Your task to perform on an android device: Go to settings Image 0: 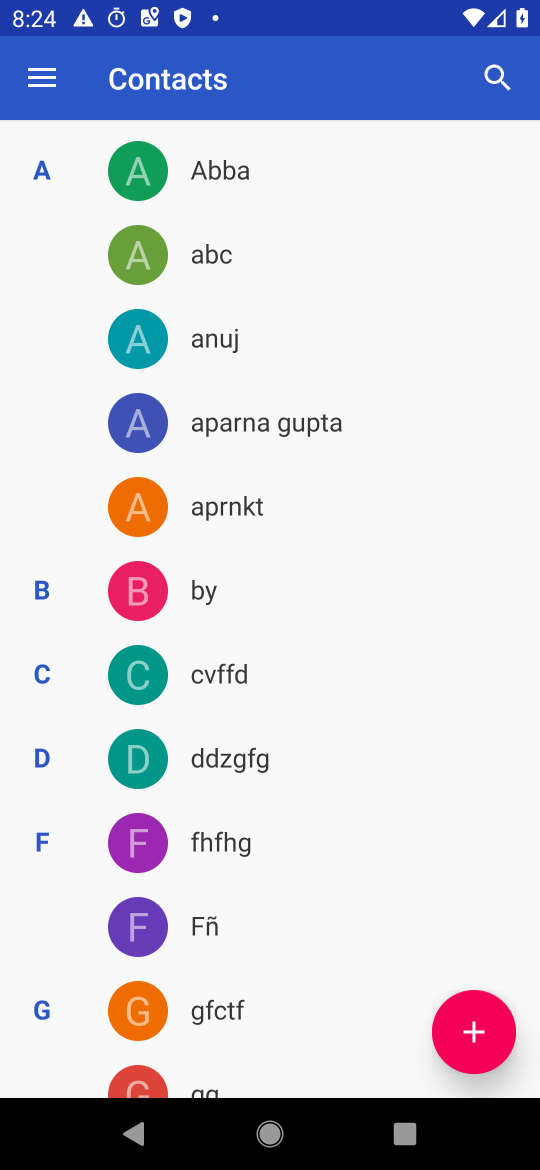
Step 0: press home button
Your task to perform on an android device: Go to settings Image 1: 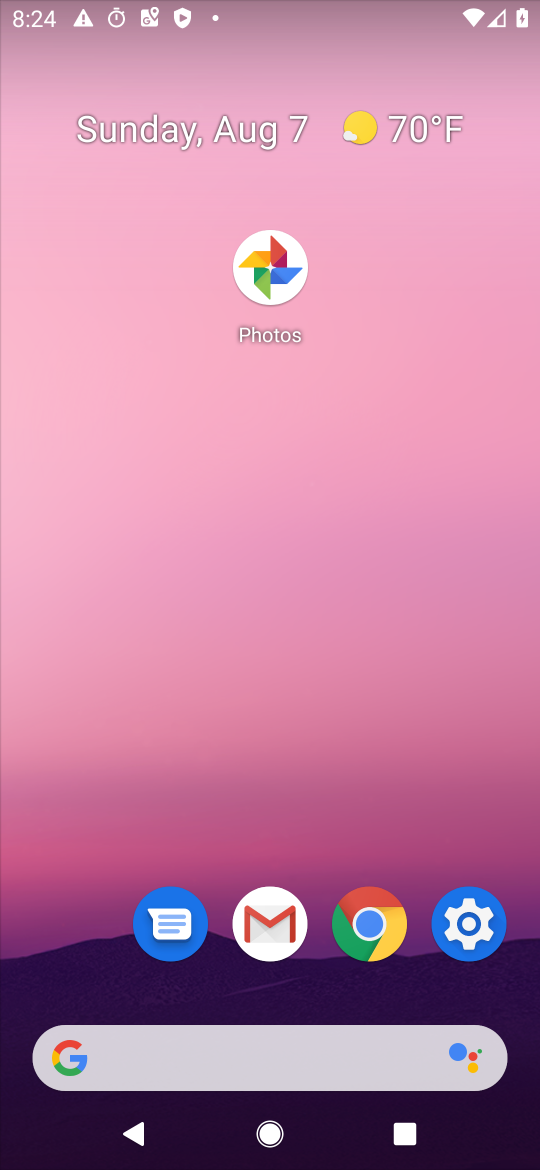
Step 1: drag from (330, 1057) to (326, 349)
Your task to perform on an android device: Go to settings Image 2: 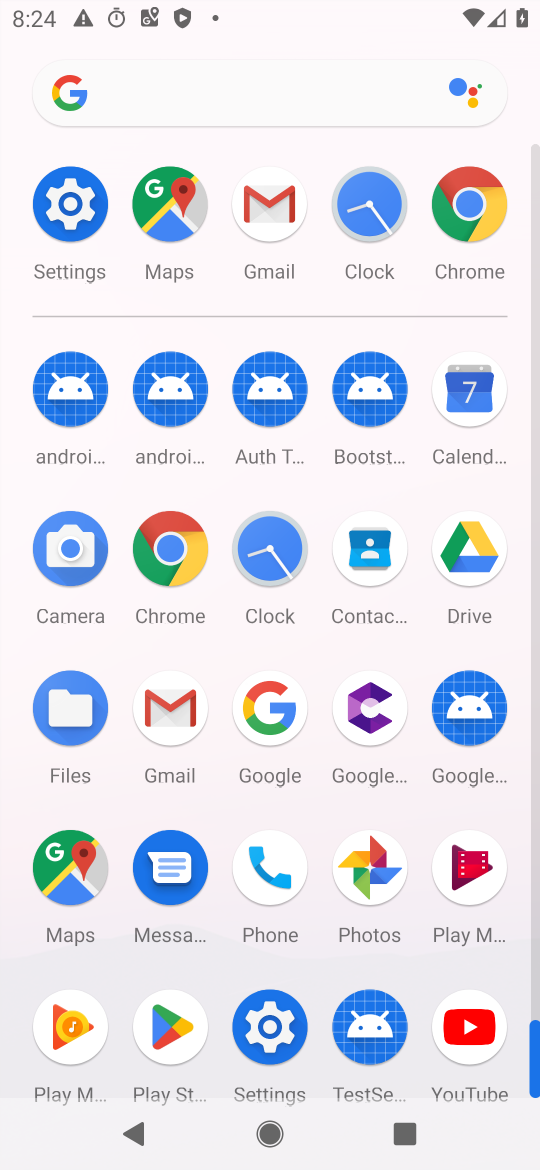
Step 2: click (82, 213)
Your task to perform on an android device: Go to settings Image 3: 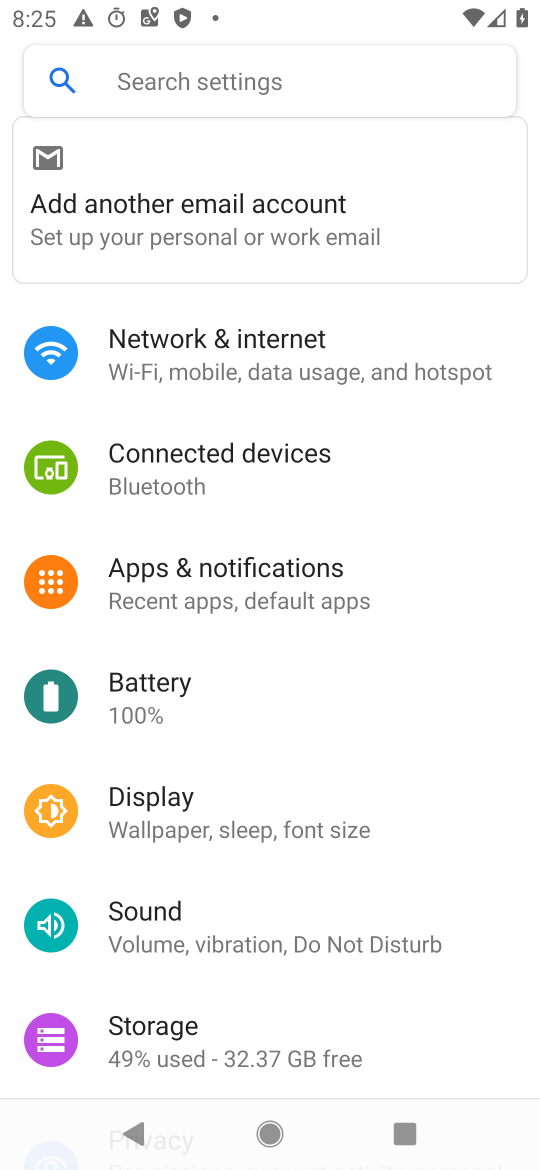
Step 3: task complete